Your task to perform on an android device: Go to Reddit.com Image 0: 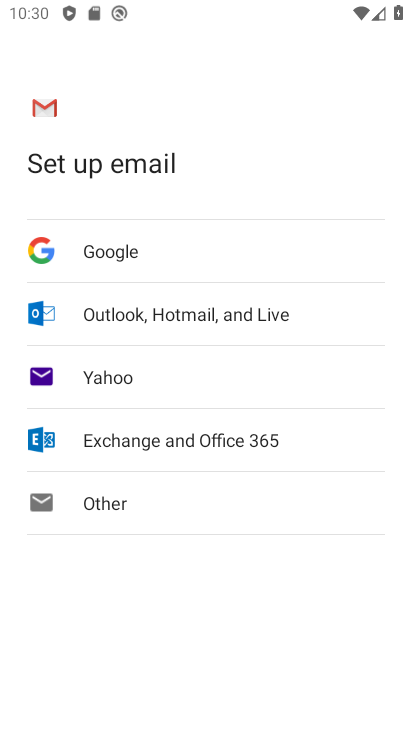
Step 0: press home button
Your task to perform on an android device: Go to Reddit.com Image 1: 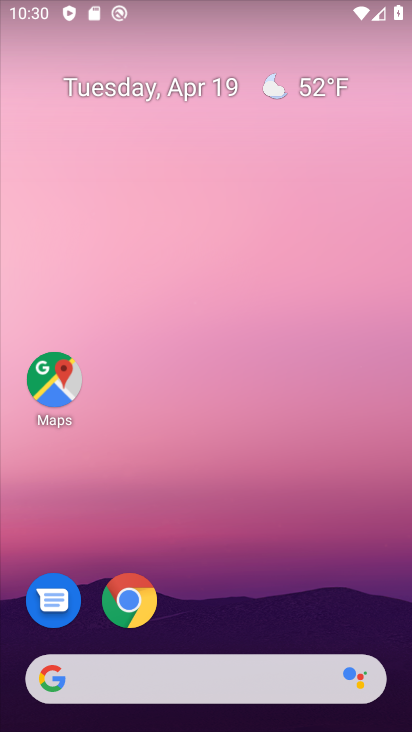
Step 1: click (107, 604)
Your task to perform on an android device: Go to Reddit.com Image 2: 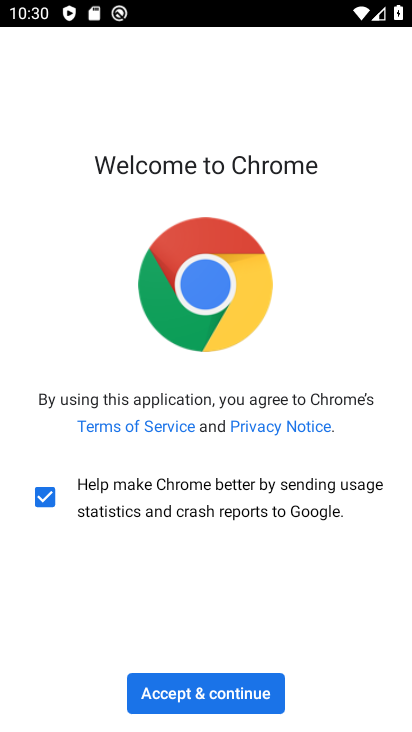
Step 2: click (174, 677)
Your task to perform on an android device: Go to Reddit.com Image 3: 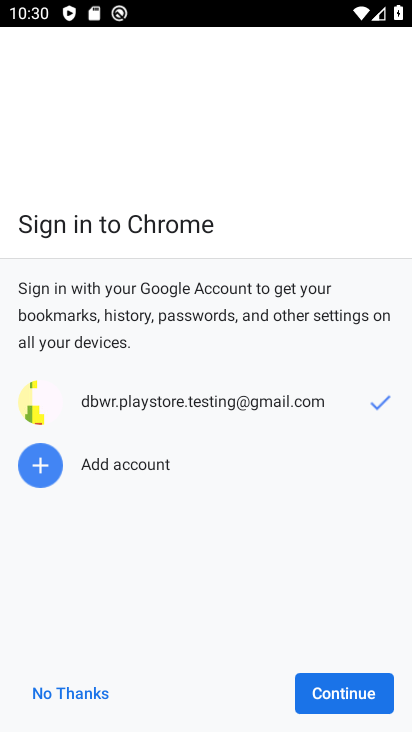
Step 3: click (329, 695)
Your task to perform on an android device: Go to Reddit.com Image 4: 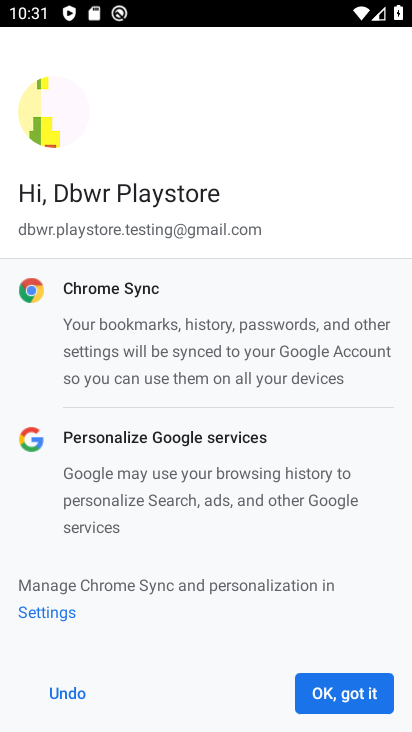
Step 4: click (329, 695)
Your task to perform on an android device: Go to Reddit.com Image 5: 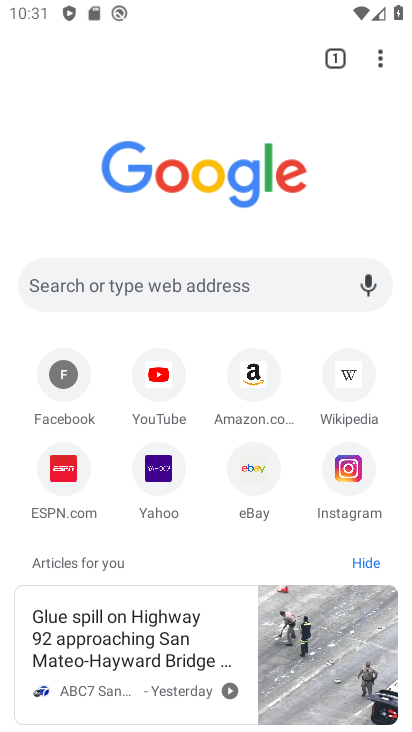
Step 5: click (243, 291)
Your task to perform on an android device: Go to Reddit.com Image 6: 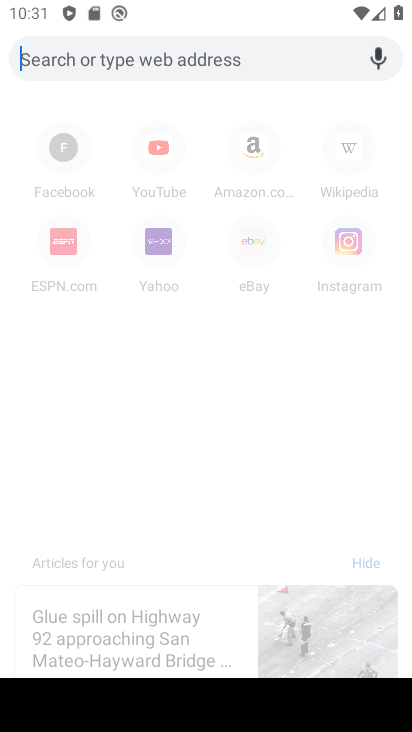
Step 6: type "reddit"
Your task to perform on an android device: Go to Reddit.com Image 7: 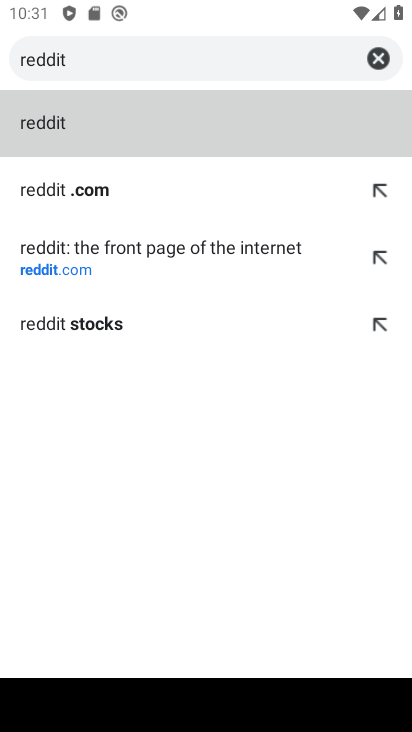
Step 7: click (153, 182)
Your task to perform on an android device: Go to Reddit.com Image 8: 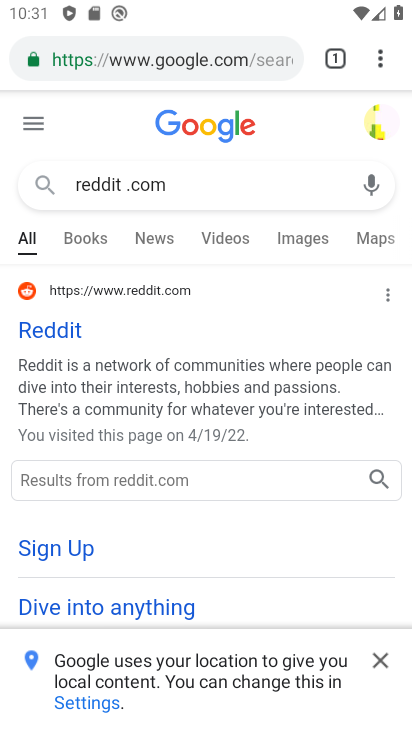
Step 8: click (66, 314)
Your task to perform on an android device: Go to Reddit.com Image 9: 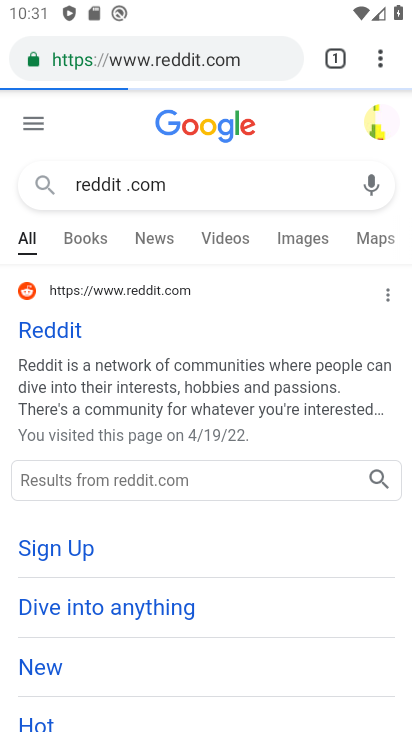
Step 9: task complete